Your task to perform on an android device: Open CNN.com Image 0: 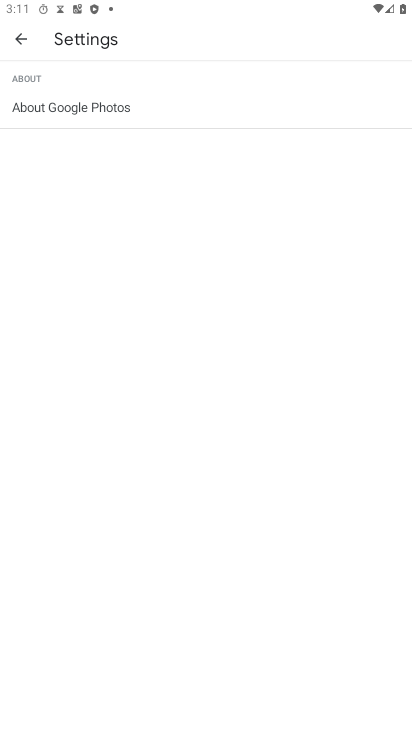
Step 0: press home button
Your task to perform on an android device: Open CNN.com Image 1: 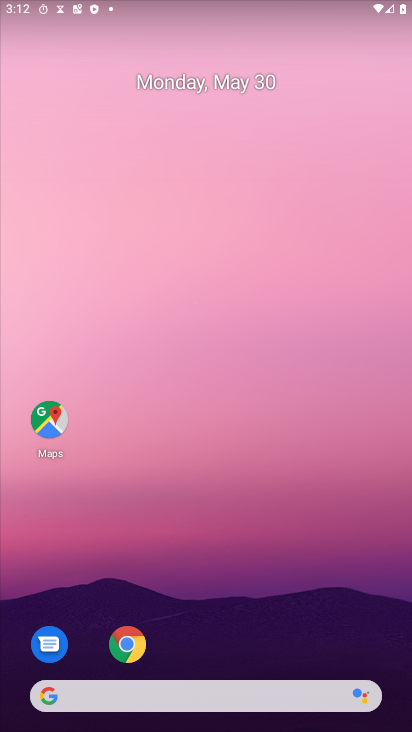
Step 1: click (51, 701)
Your task to perform on an android device: Open CNN.com Image 2: 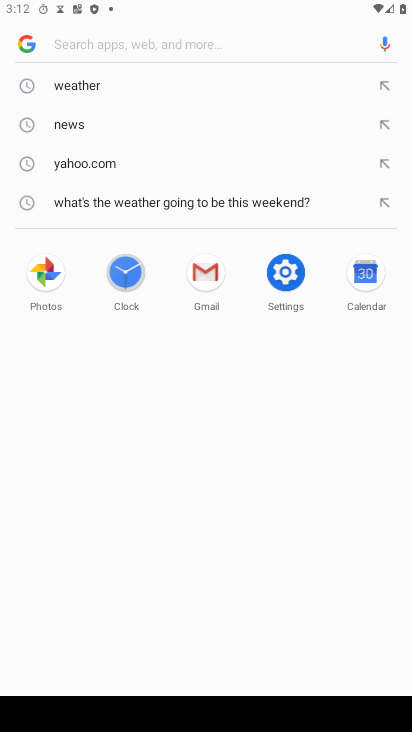
Step 2: type "CNN.com"
Your task to perform on an android device: Open CNN.com Image 3: 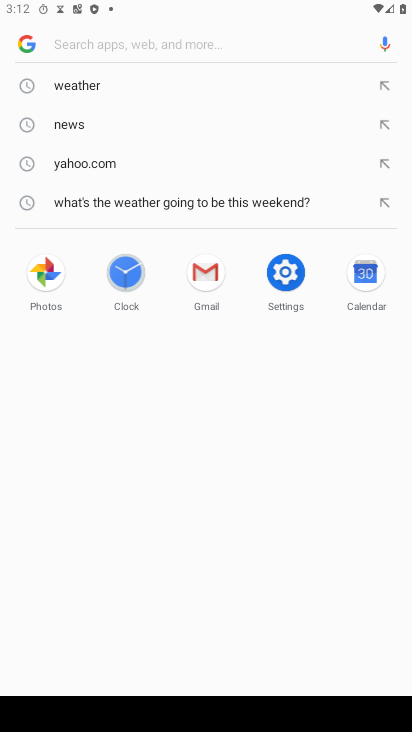
Step 3: click (207, 49)
Your task to perform on an android device: Open CNN.com Image 4: 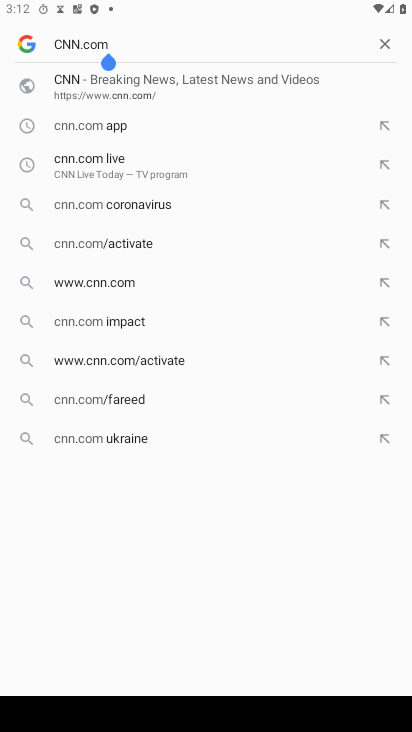
Step 4: click (98, 99)
Your task to perform on an android device: Open CNN.com Image 5: 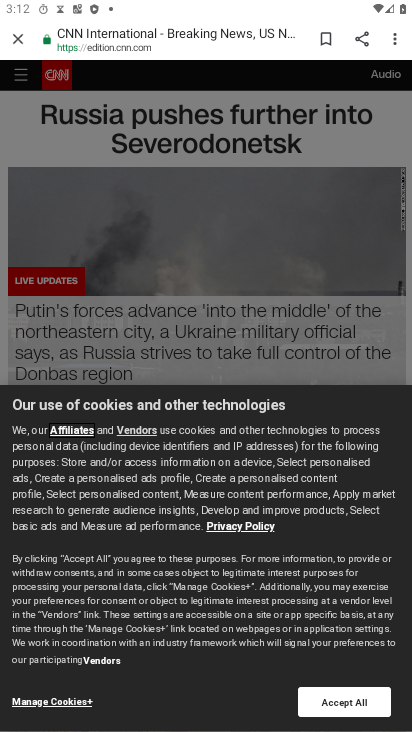
Step 5: task complete